Your task to perform on an android device: Open the calendar and show me this week's events? Image 0: 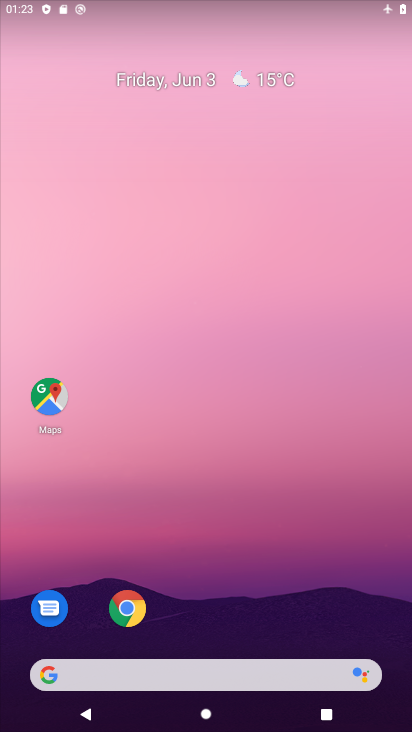
Step 0: drag from (278, 519) to (281, 120)
Your task to perform on an android device: Open the calendar and show me this week's events? Image 1: 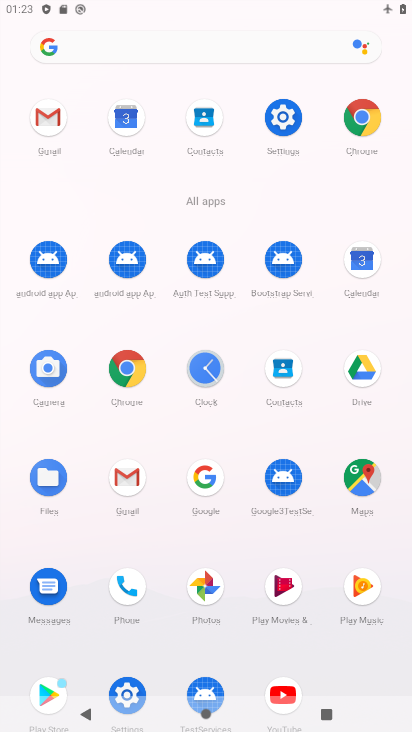
Step 1: click (128, 128)
Your task to perform on an android device: Open the calendar and show me this week's events? Image 2: 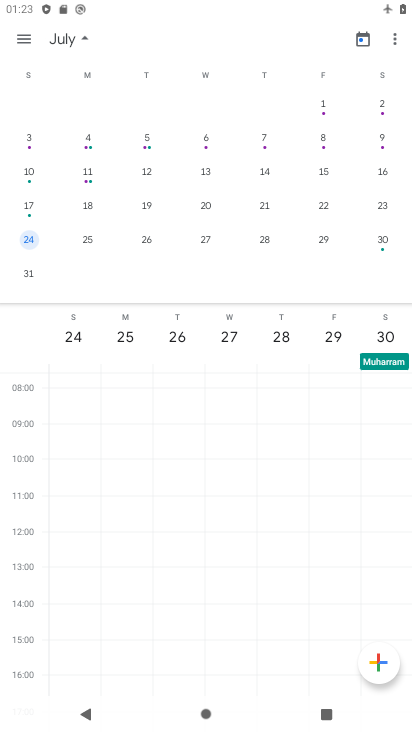
Step 2: drag from (48, 177) to (377, 169)
Your task to perform on an android device: Open the calendar and show me this week's events? Image 3: 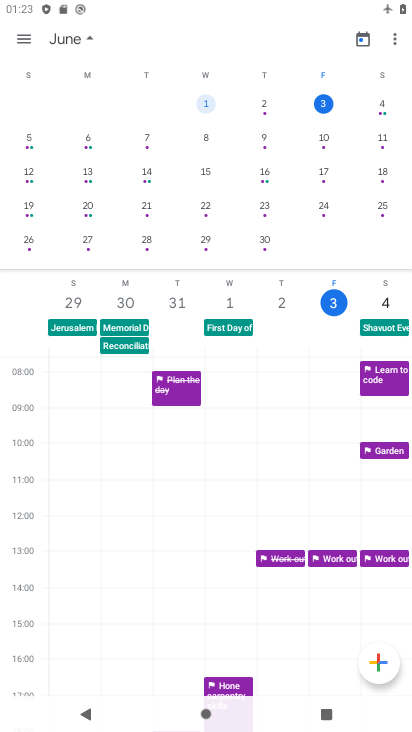
Step 3: click (29, 146)
Your task to perform on an android device: Open the calendar and show me this week's events? Image 4: 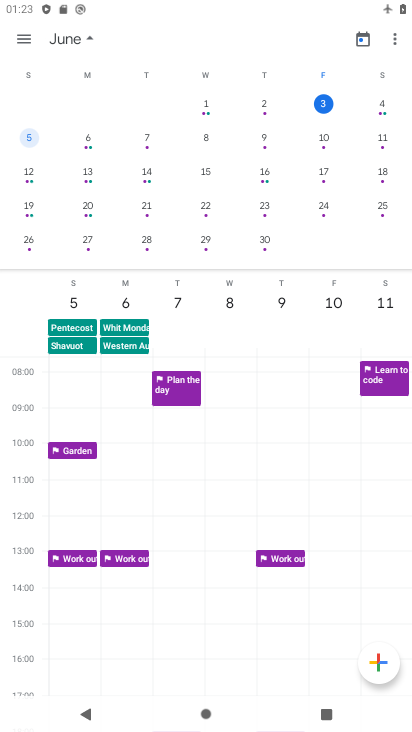
Step 4: click (386, 98)
Your task to perform on an android device: Open the calendar and show me this week's events? Image 5: 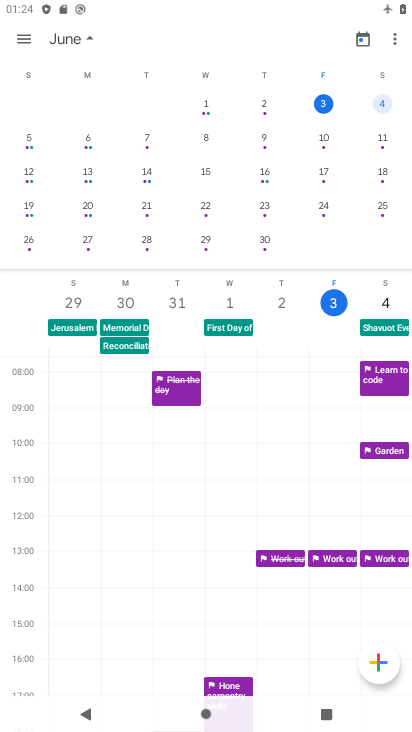
Step 5: click (315, 104)
Your task to perform on an android device: Open the calendar and show me this week's events? Image 6: 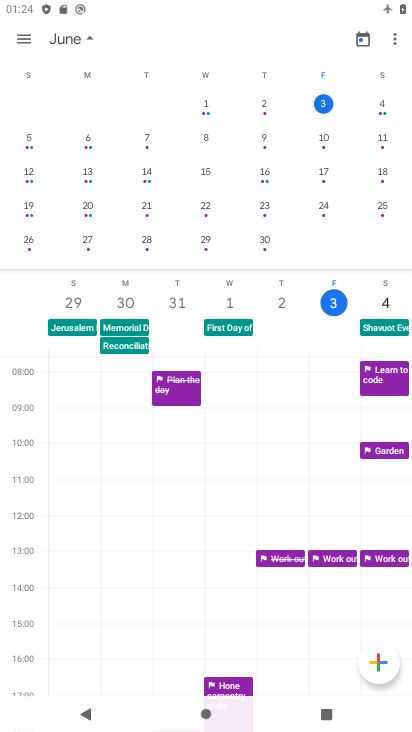
Step 6: click (271, 100)
Your task to perform on an android device: Open the calendar and show me this week's events? Image 7: 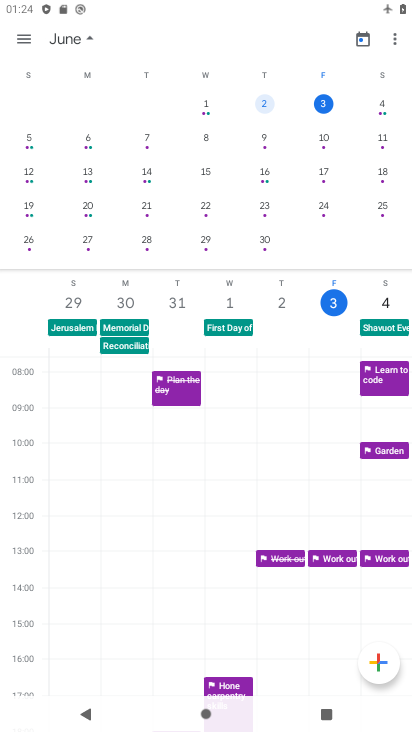
Step 7: task complete